Your task to perform on an android device: turn off improve location accuracy Image 0: 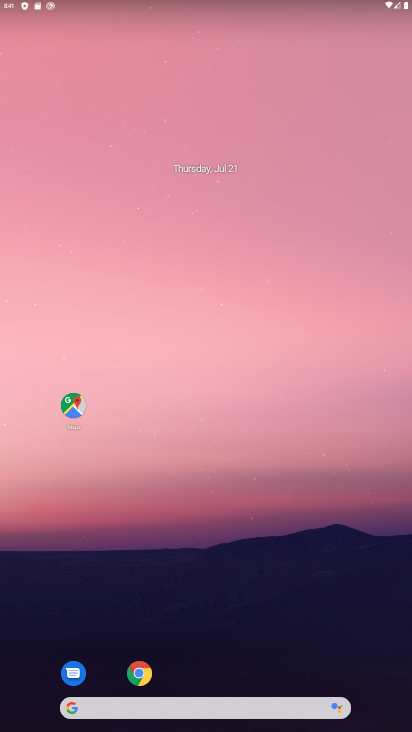
Step 0: drag from (297, 631) to (228, 178)
Your task to perform on an android device: turn off improve location accuracy Image 1: 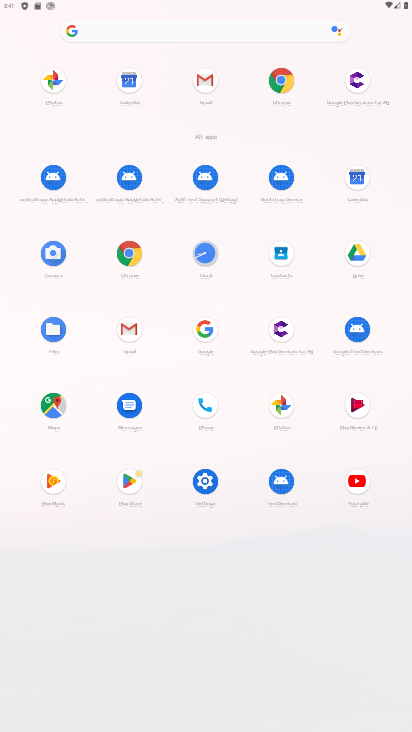
Step 1: click (211, 477)
Your task to perform on an android device: turn off improve location accuracy Image 2: 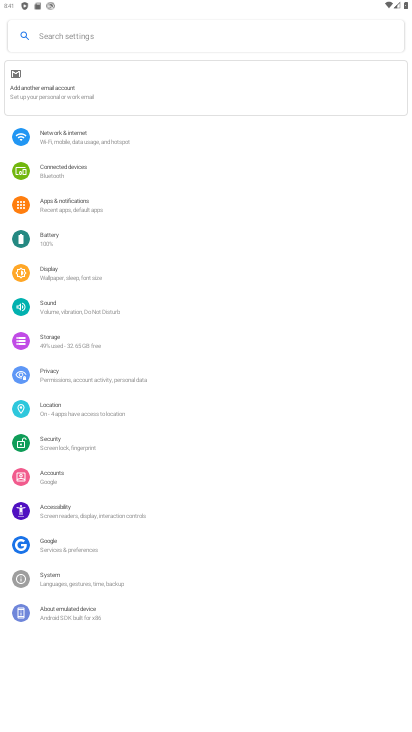
Step 2: click (75, 414)
Your task to perform on an android device: turn off improve location accuracy Image 3: 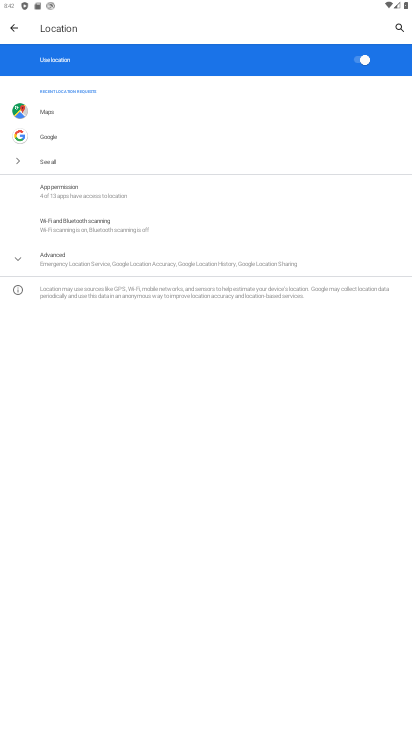
Step 3: click (77, 255)
Your task to perform on an android device: turn off improve location accuracy Image 4: 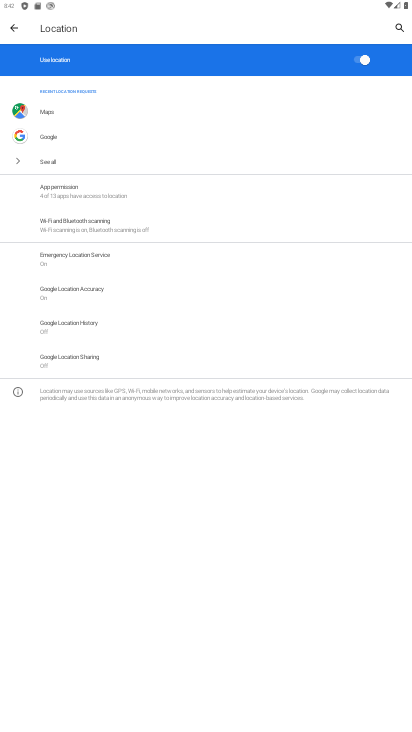
Step 4: click (83, 292)
Your task to perform on an android device: turn off improve location accuracy Image 5: 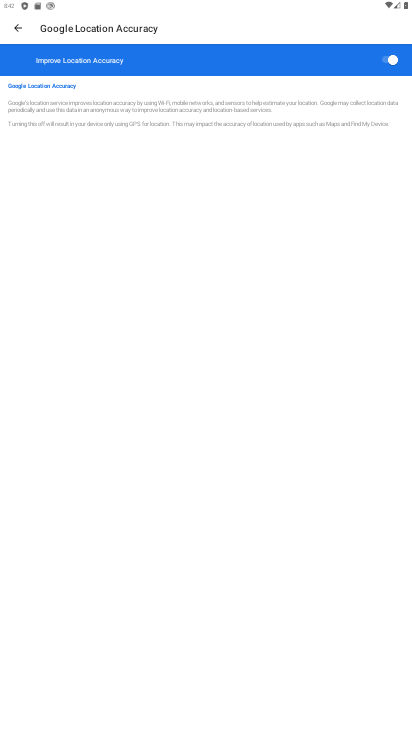
Step 5: task complete